Your task to perform on an android device: open a new tab in the chrome app Image 0: 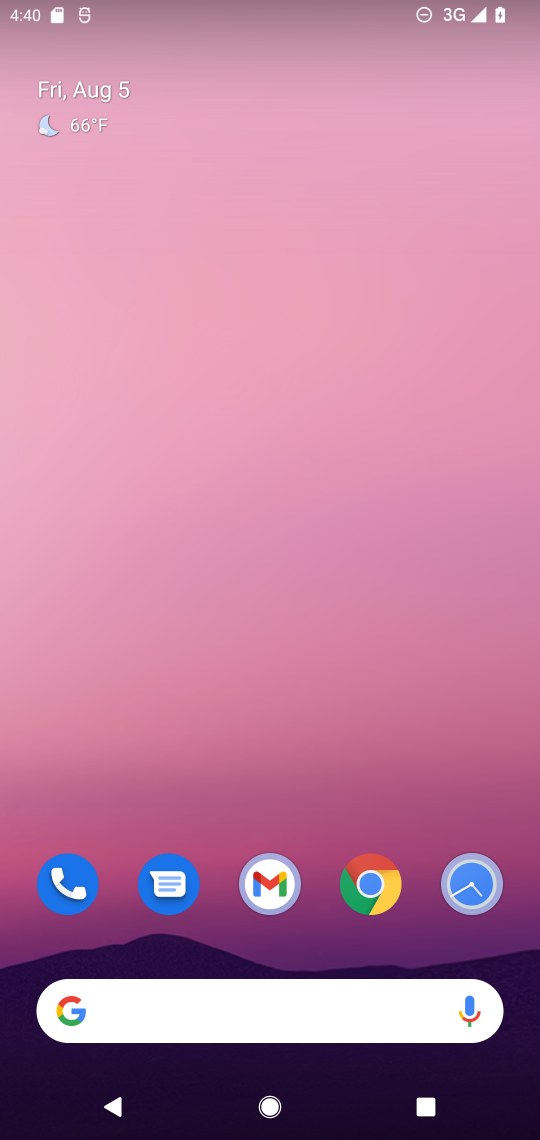
Step 0: drag from (410, 962) to (313, 67)
Your task to perform on an android device: open a new tab in the chrome app Image 1: 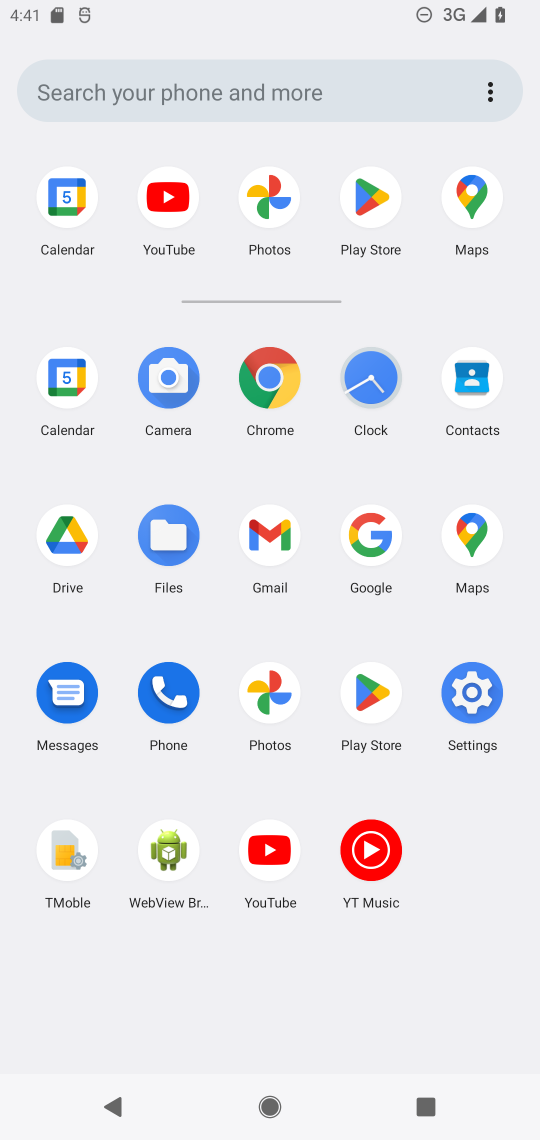
Step 1: click (277, 357)
Your task to perform on an android device: open a new tab in the chrome app Image 2: 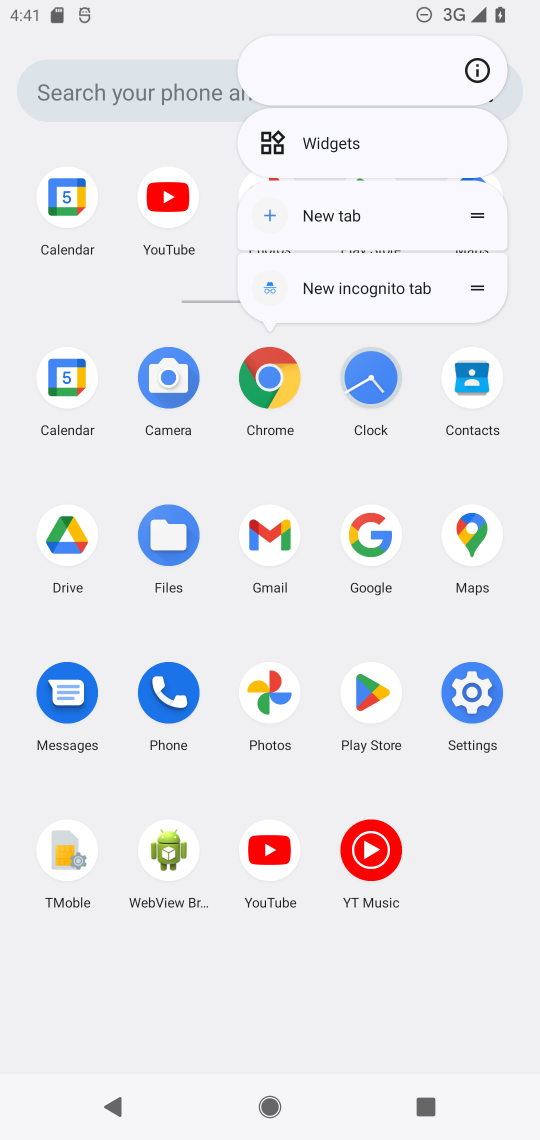
Step 2: click (277, 357)
Your task to perform on an android device: open a new tab in the chrome app Image 3: 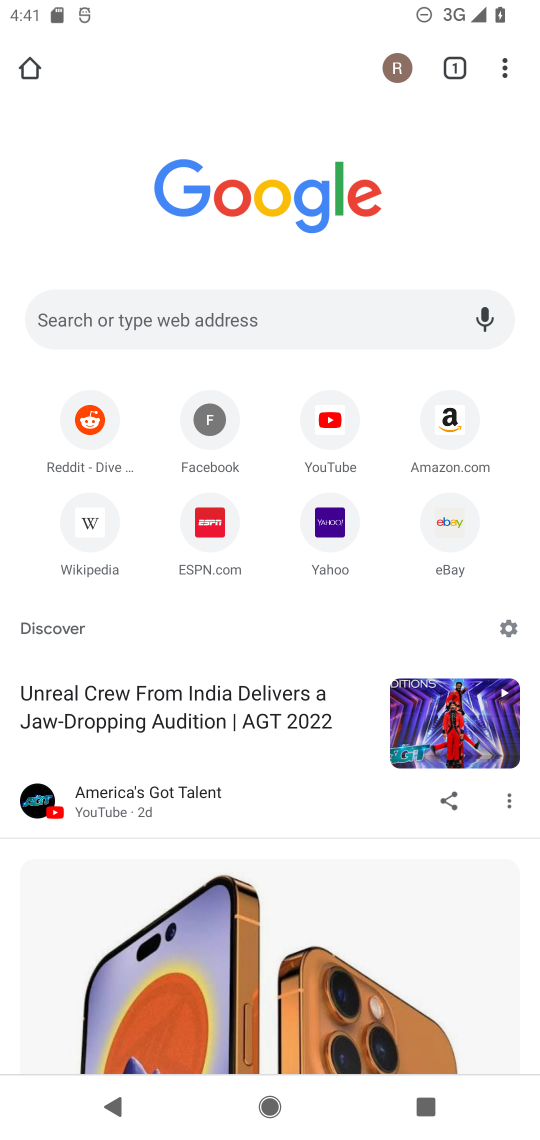
Step 3: click (511, 58)
Your task to perform on an android device: open a new tab in the chrome app Image 4: 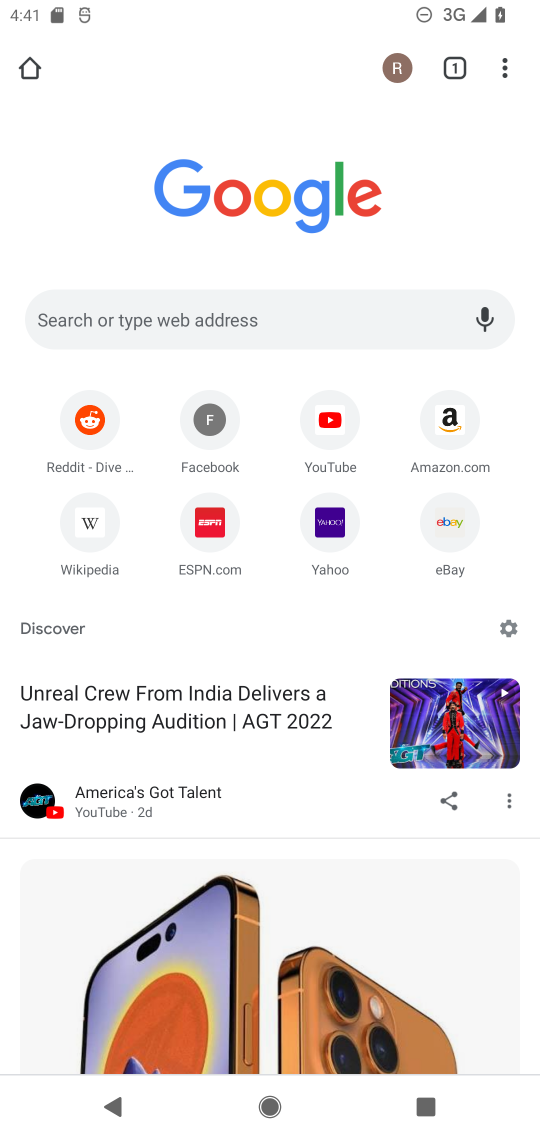
Step 4: click (511, 58)
Your task to perform on an android device: open a new tab in the chrome app Image 5: 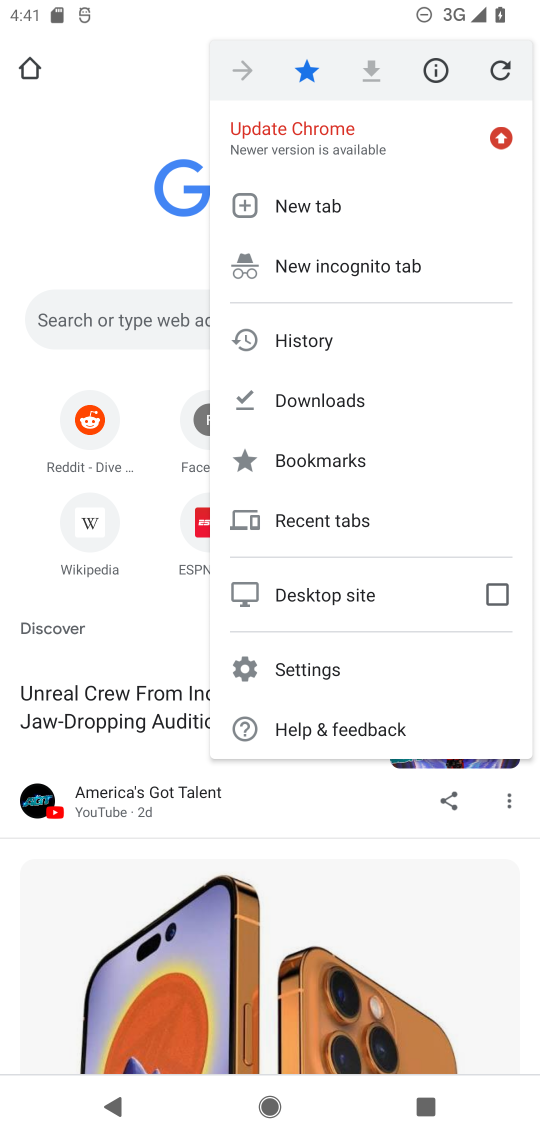
Step 5: click (337, 213)
Your task to perform on an android device: open a new tab in the chrome app Image 6: 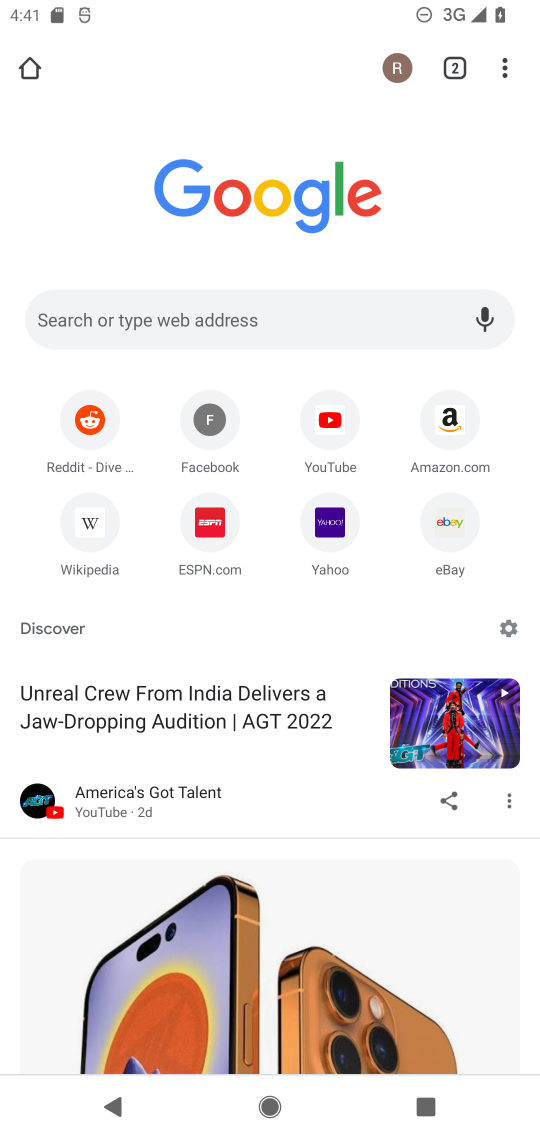
Step 6: task complete